Your task to perform on an android device: change keyboard looks Image 0: 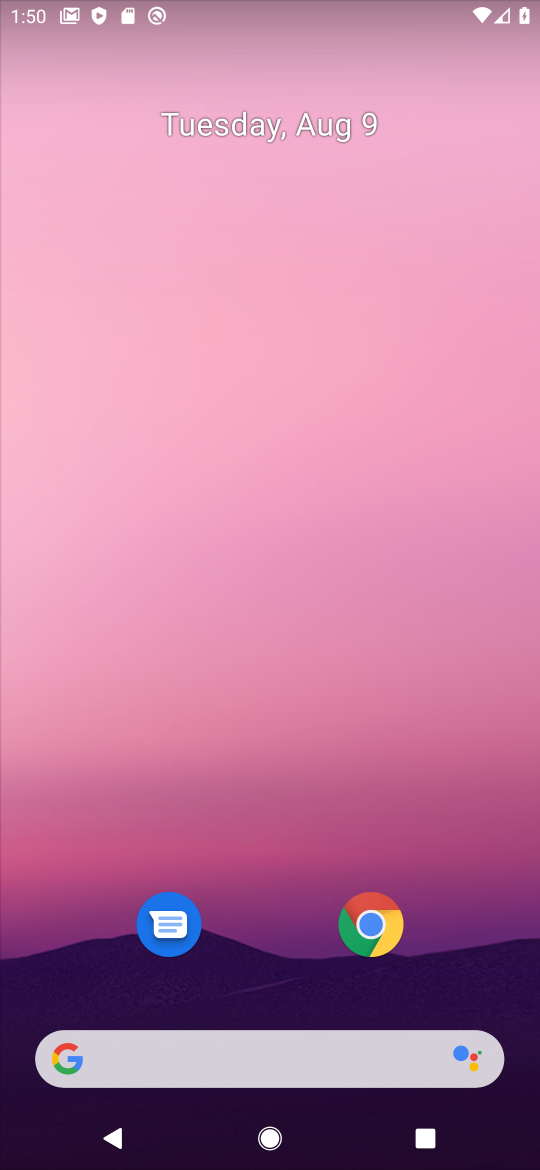
Step 0: drag from (509, 979) to (388, 175)
Your task to perform on an android device: change keyboard looks Image 1: 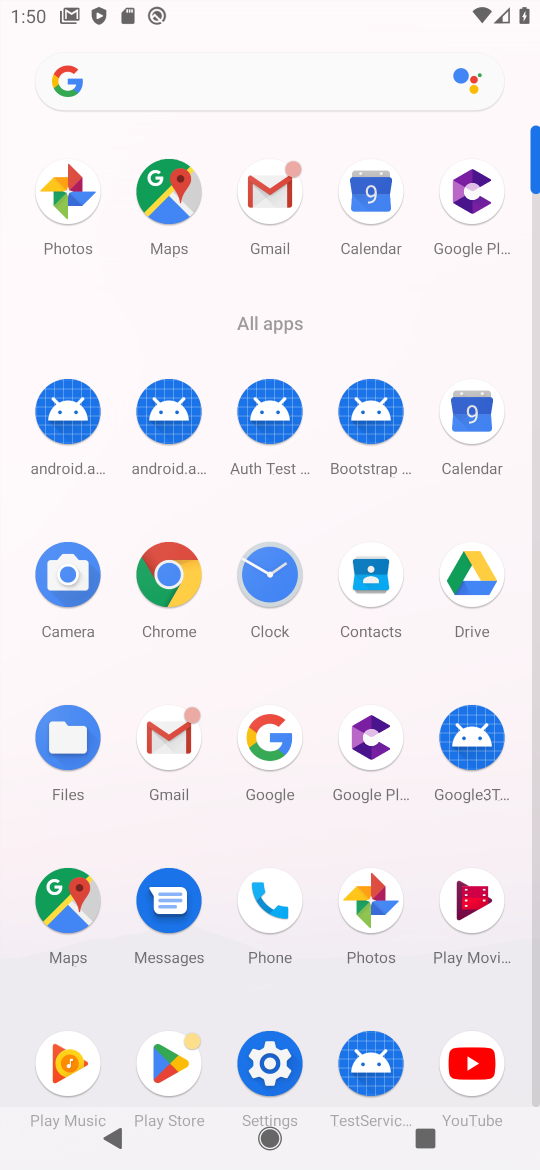
Step 1: click (280, 1058)
Your task to perform on an android device: change keyboard looks Image 2: 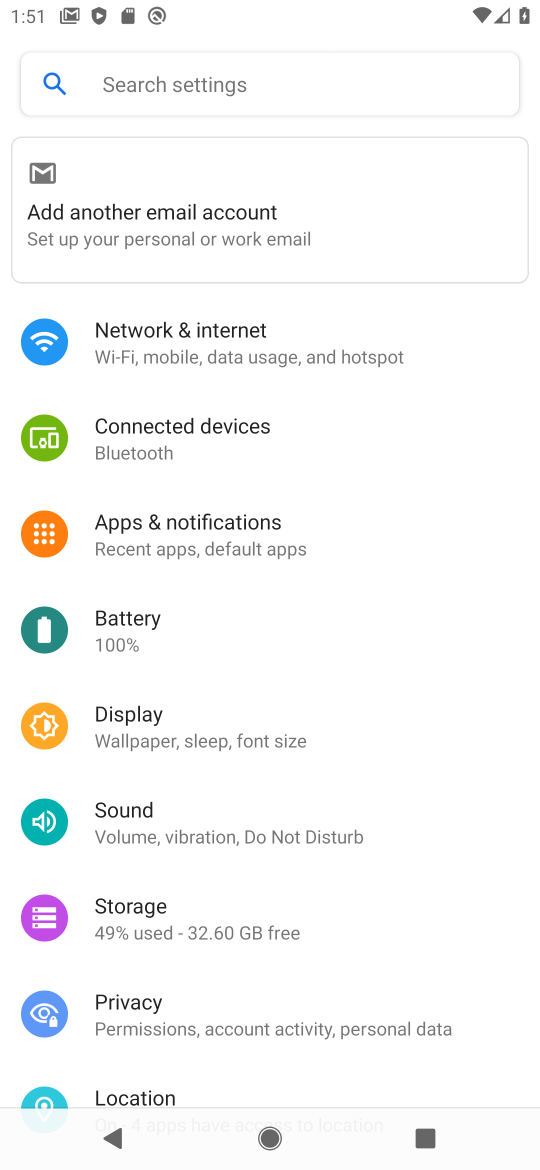
Step 2: drag from (270, 985) to (398, 365)
Your task to perform on an android device: change keyboard looks Image 3: 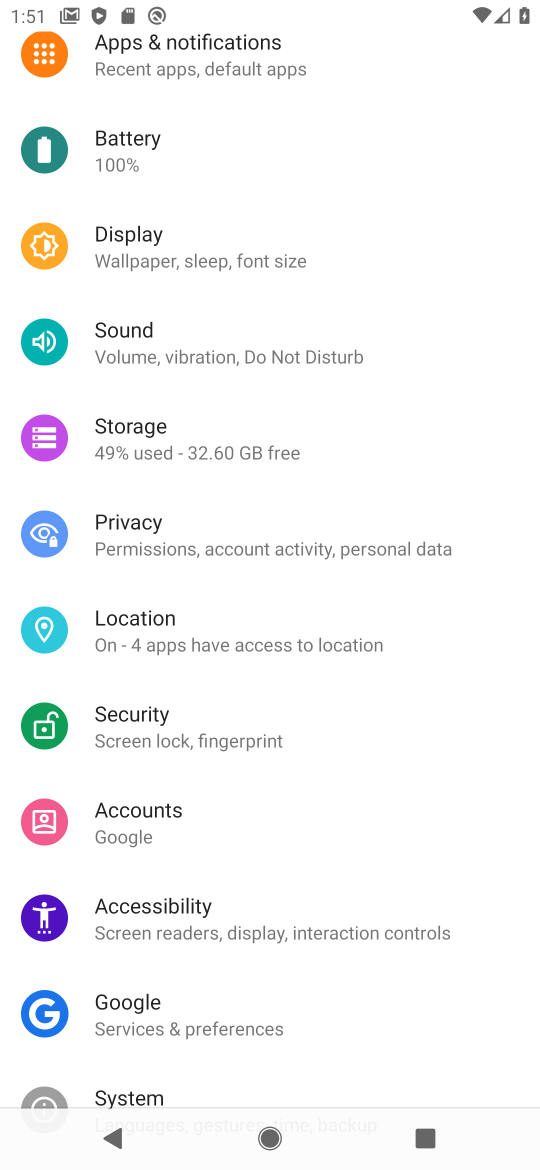
Step 3: drag from (307, 1028) to (353, 340)
Your task to perform on an android device: change keyboard looks Image 4: 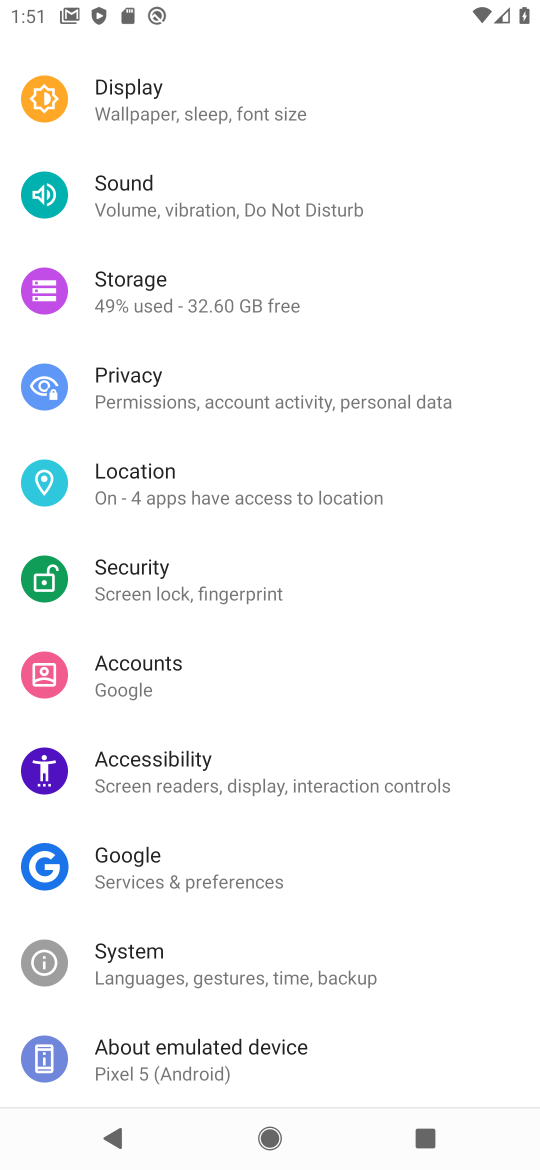
Step 4: click (145, 958)
Your task to perform on an android device: change keyboard looks Image 5: 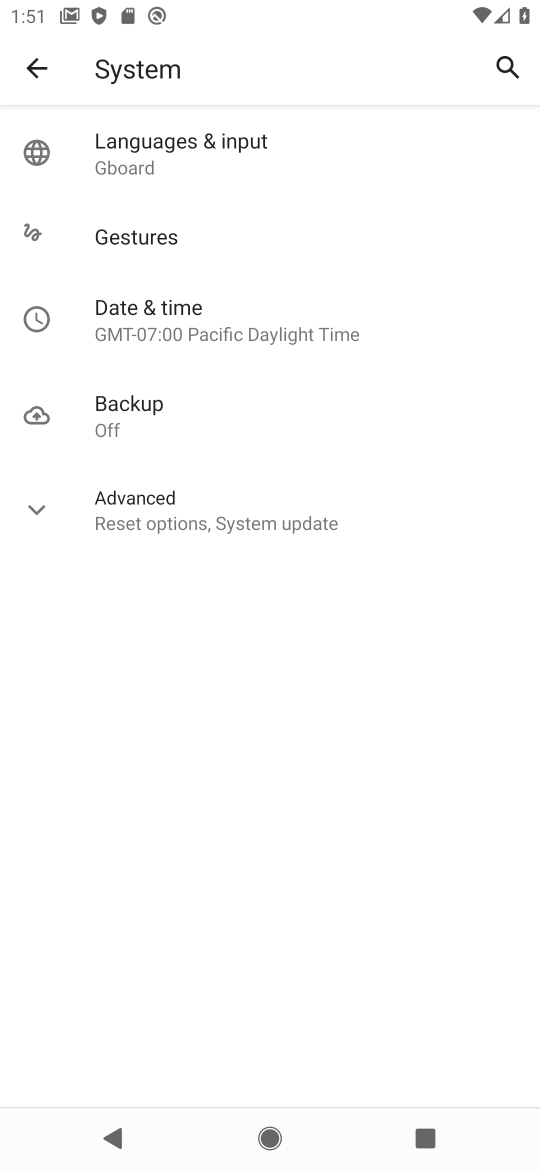
Step 5: click (137, 144)
Your task to perform on an android device: change keyboard looks Image 6: 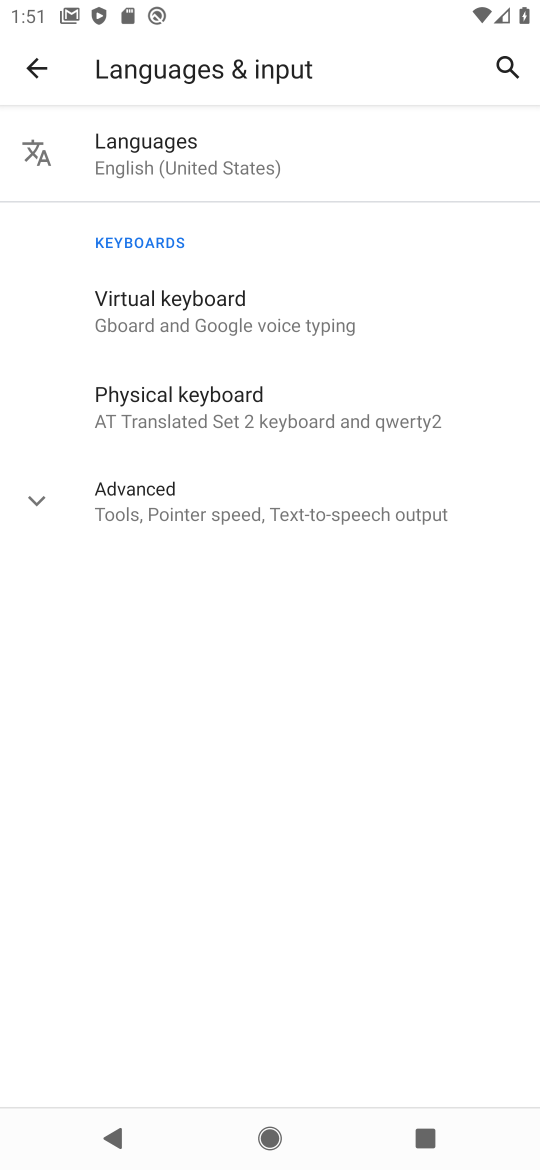
Step 6: click (167, 311)
Your task to perform on an android device: change keyboard looks Image 7: 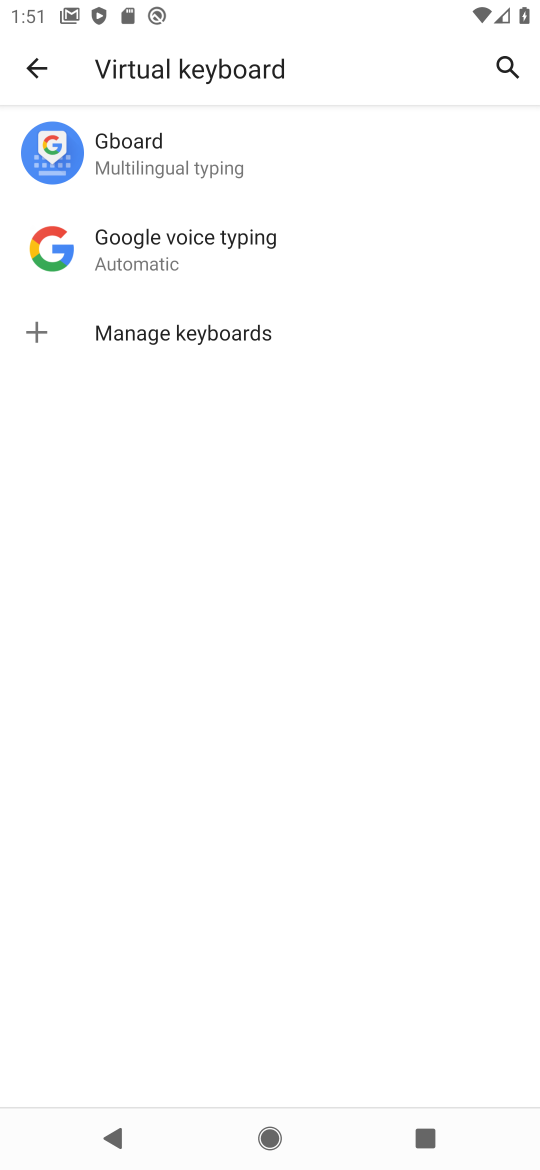
Step 7: click (143, 155)
Your task to perform on an android device: change keyboard looks Image 8: 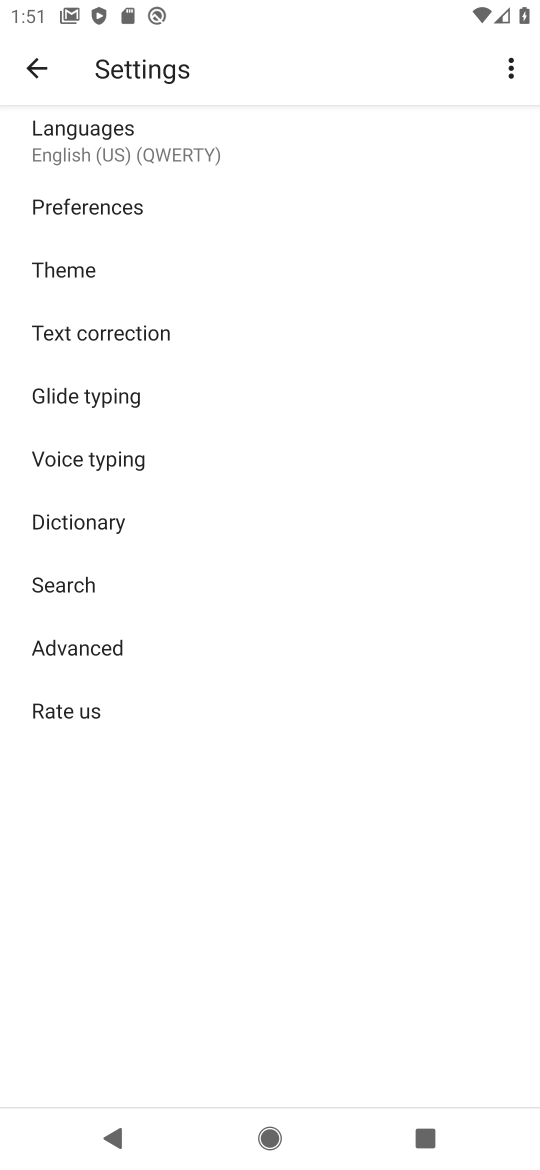
Step 8: click (36, 262)
Your task to perform on an android device: change keyboard looks Image 9: 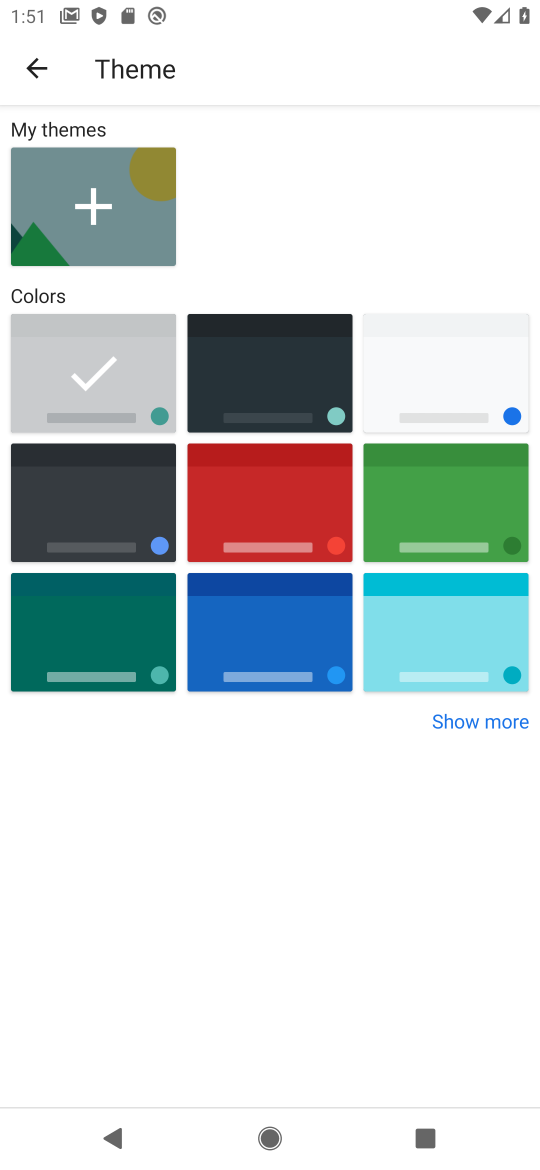
Step 9: click (288, 520)
Your task to perform on an android device: change keyboard looks Image 10: 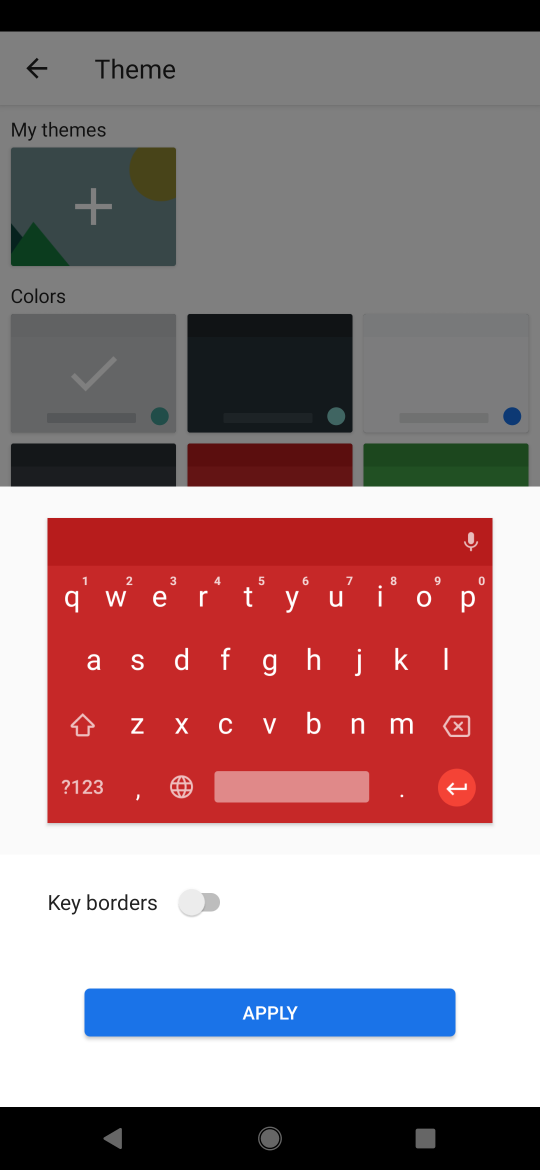
Step 10: click (198, 893)
Your task to perform on an android device: change keyboard looks Image 11: 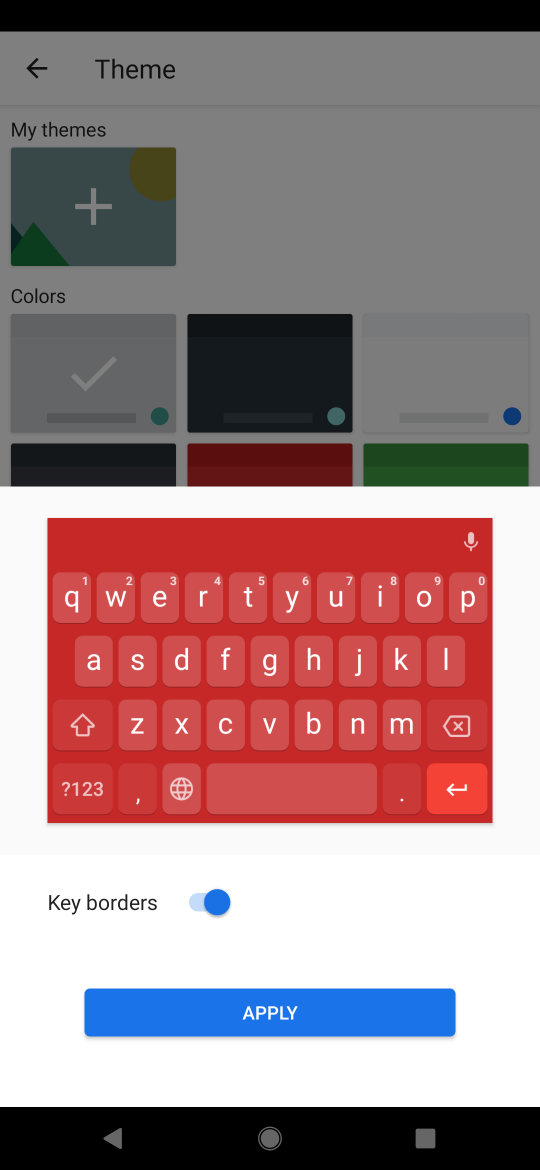
Step 11: click (277, 1010)
Your task to perform on an android device: change keyboard looks Image 12: 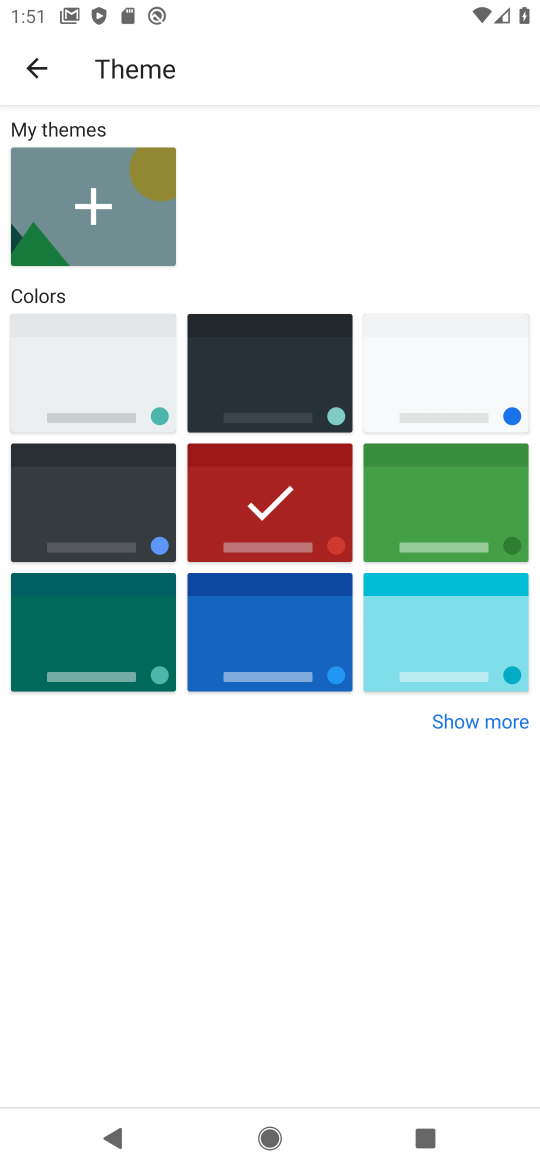
Step 12: task complete